Your task to perform on an android device: Add logitech g502 to the cart on target.com, then select checkout. Image 0: 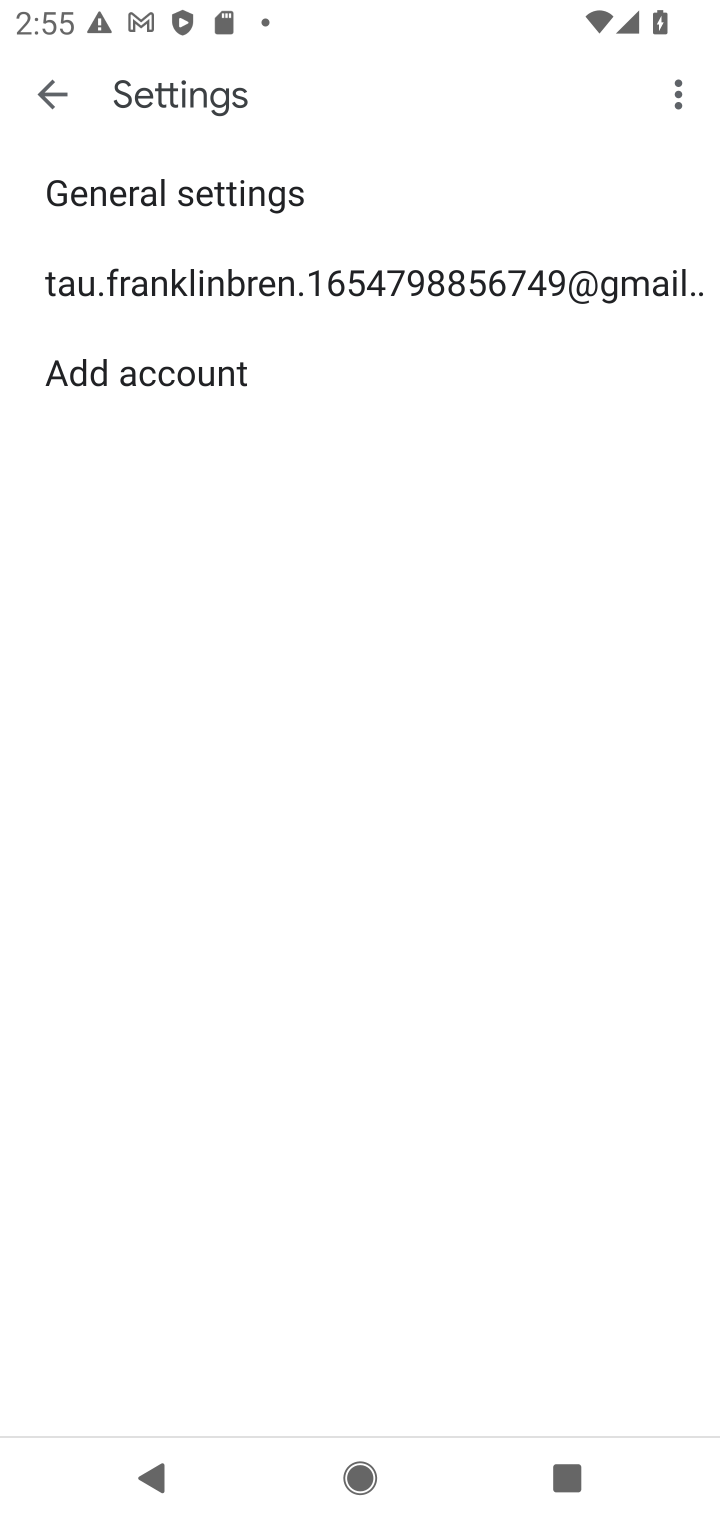
Step 0: task complete